Your task to perform on an android device: toggle javascript in the chrome app Image 0: 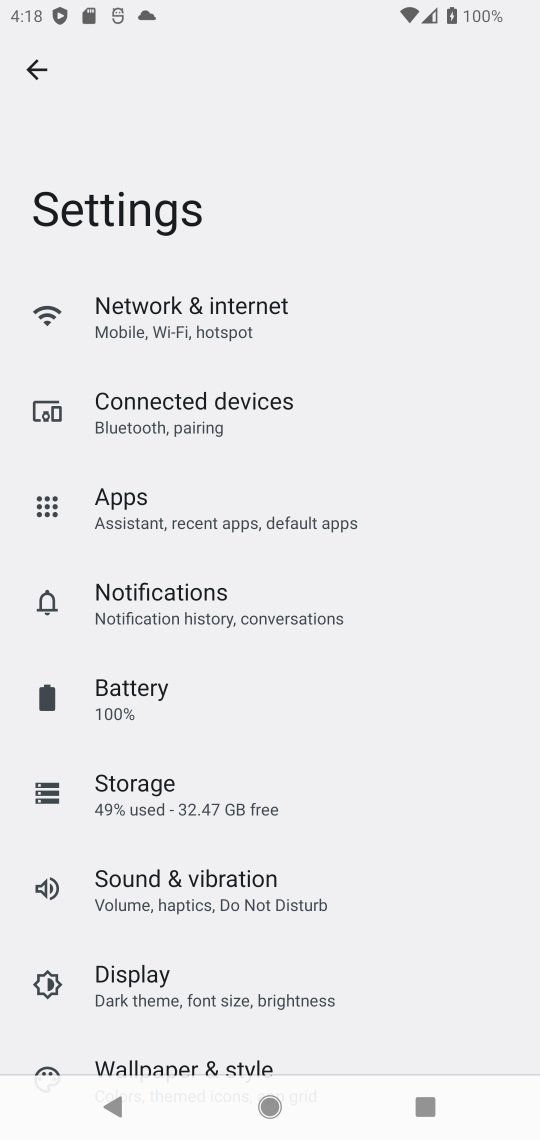
Step 0: press home button
Your task to perform on an android device: toggle javascript in the chrome app Image 1: 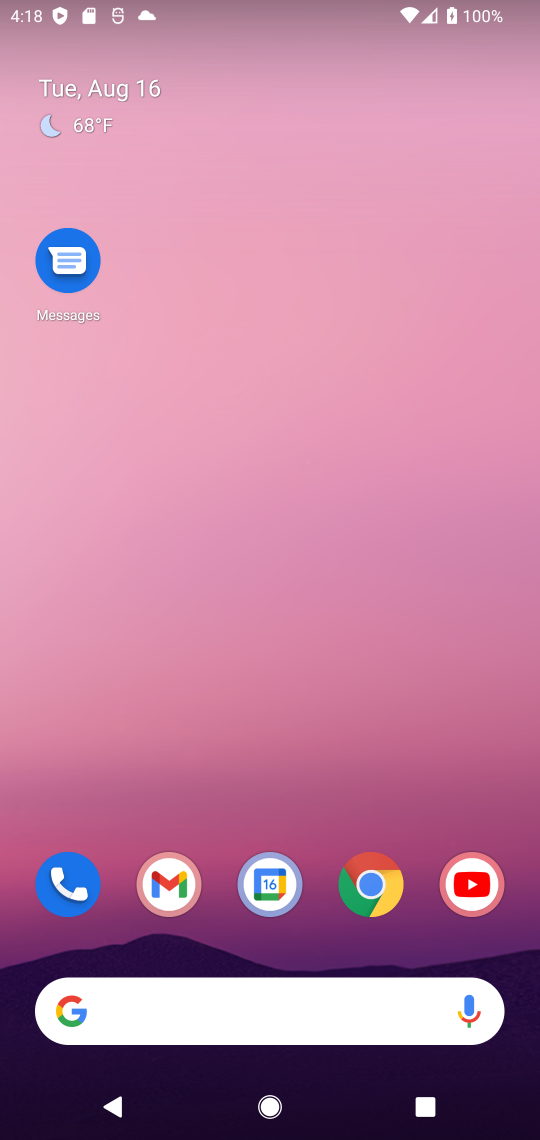
Step 1: click (372, 878)
Your task to perform on an android device: toggle javascript in the chrome app Image 2: 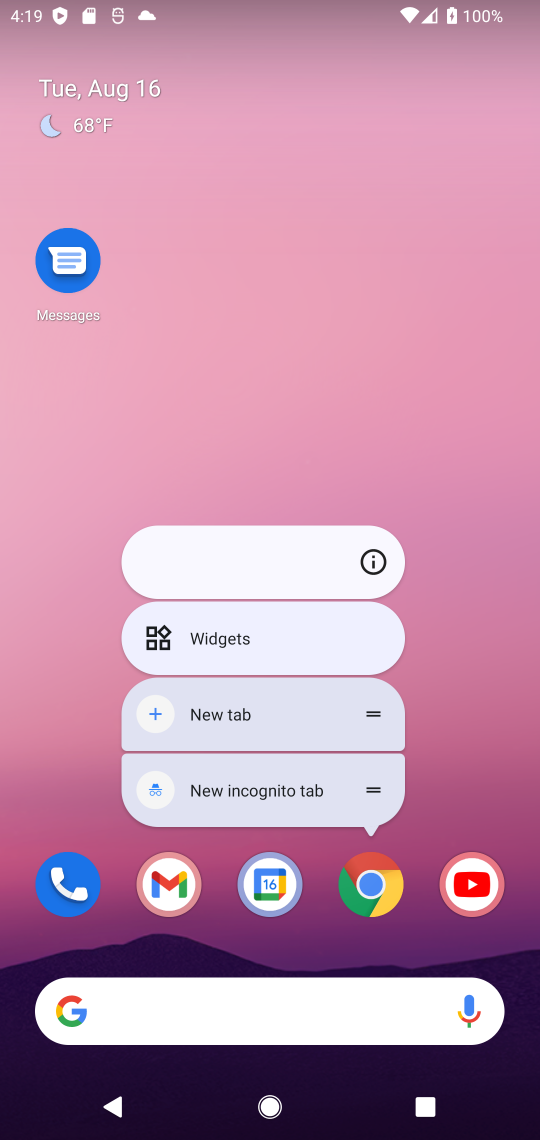
Step 2: click (377, 884)
Your task to perform on an android device: toggle javascript in the chrome app Image 3: 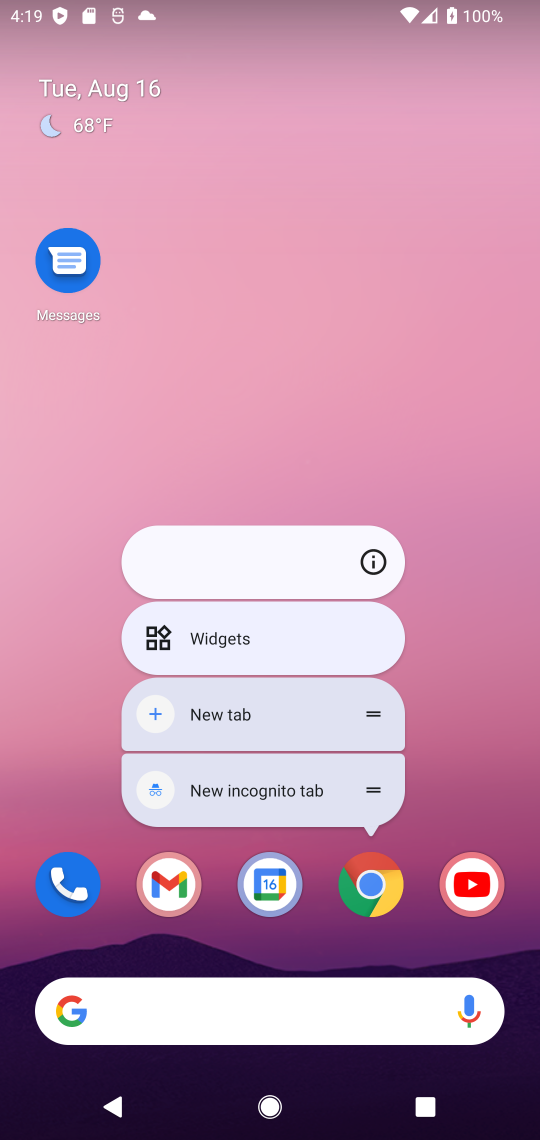
Step 3: click (360, 879)
Your task to perform on an android device: toggle javascript in the chrome app Image 4: 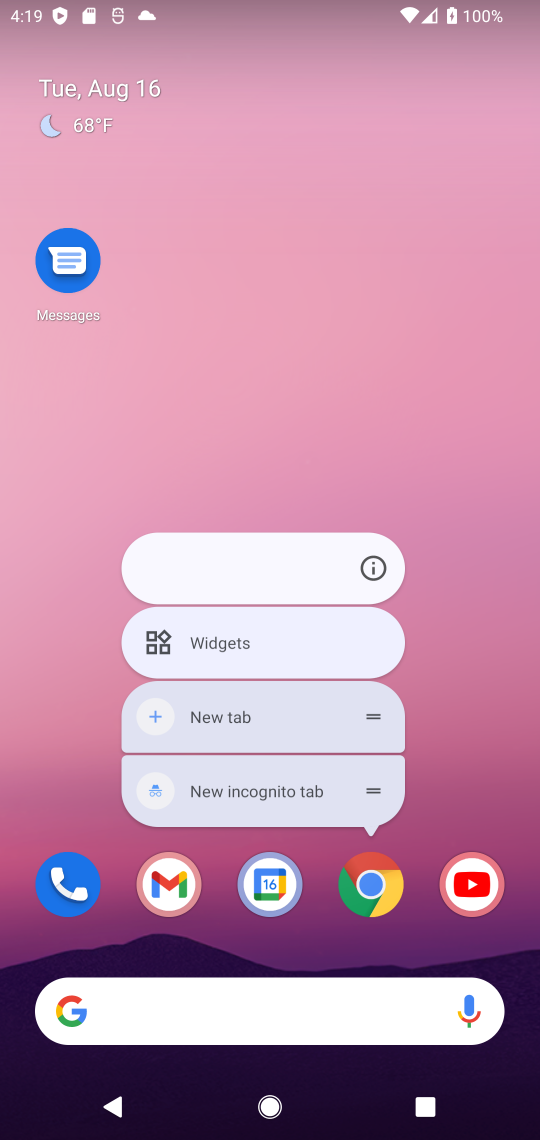
Step 4: click (360, 879)
Your task to perform on an android device: toggle javascript in the chrome app Image 5: 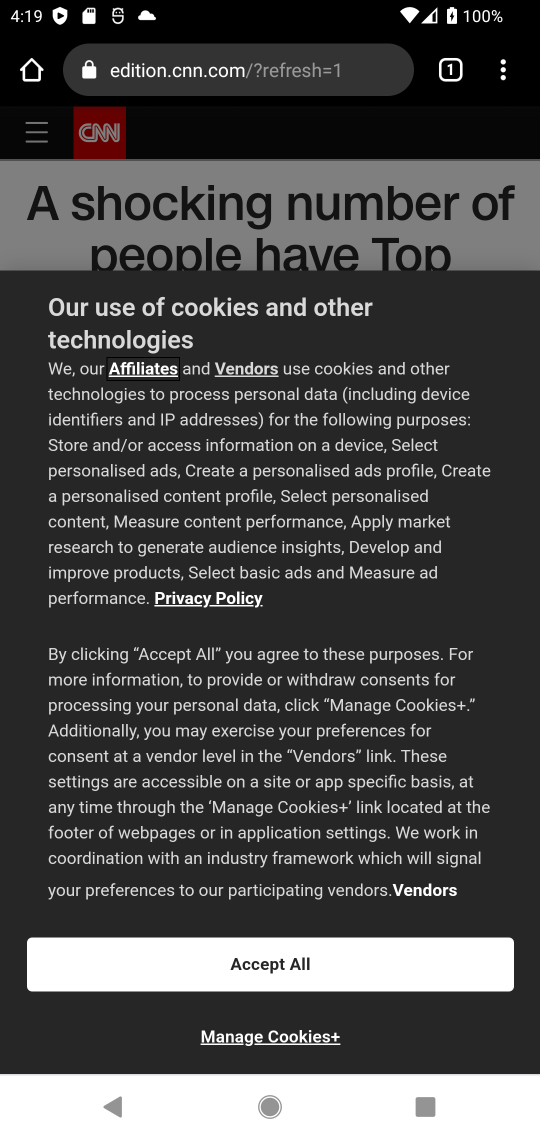
Step 5: click (501, 71)
Your task to perform on an android device: toggle javascript in the chrome app Image 6: 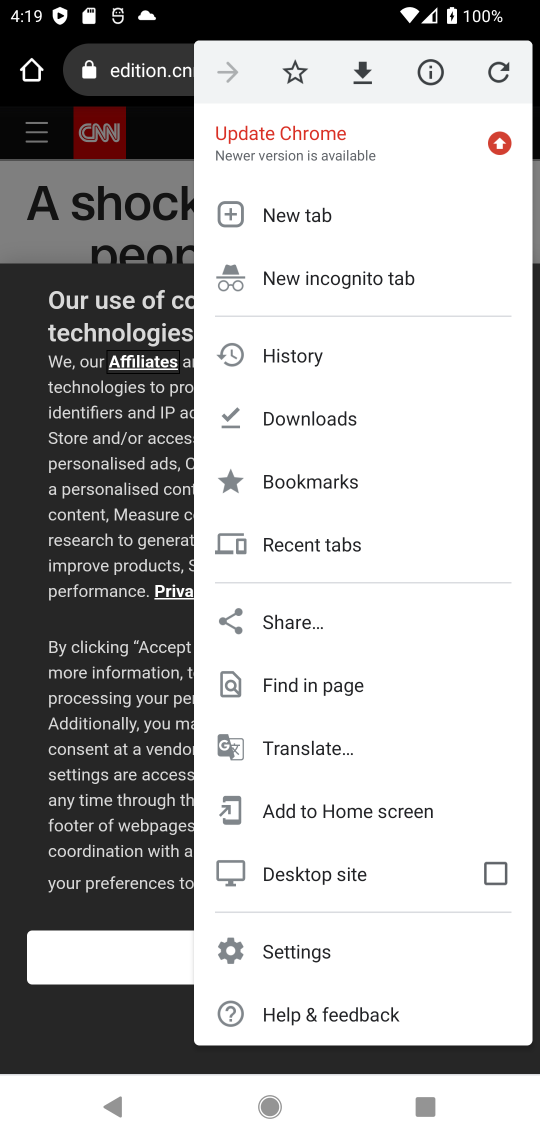
Step 6: click (280, 948)
Your task to perform on an android device: toggle javascript in the chrome app Image 7: 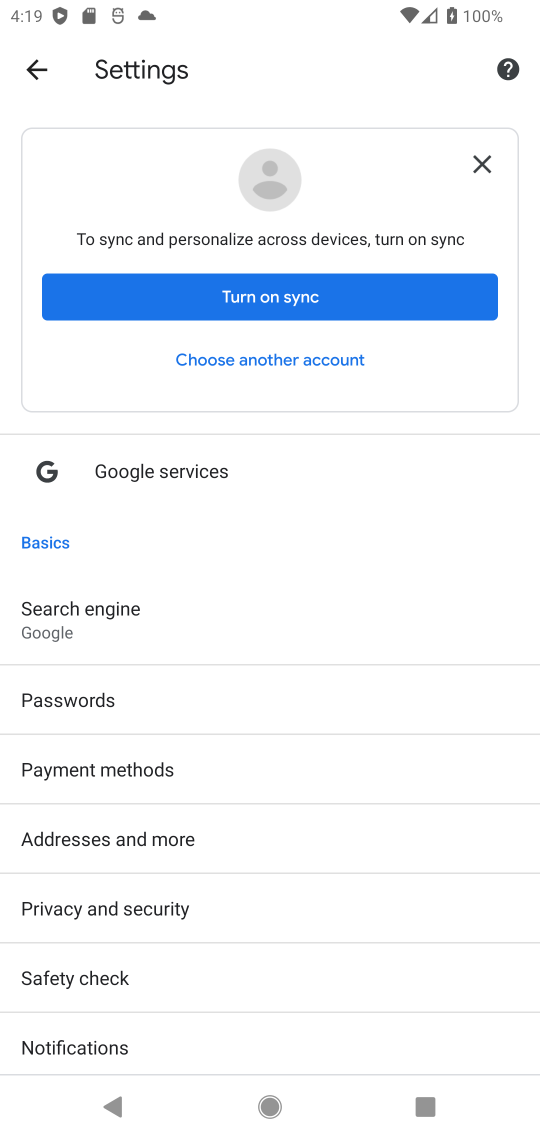
Step 7: drag from (326, 1058) to (434, 480)
Your task to perform on an android device: toggle javascript in the chrome app Image 8: 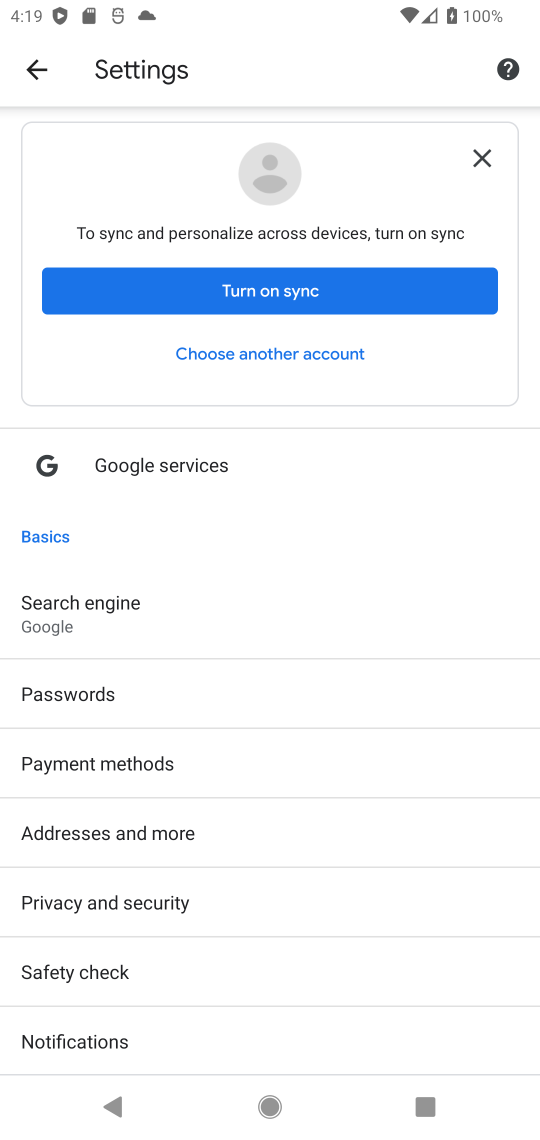
Step 8: drag from (306, 908) to (360, 411)
Your task to perform on an android device: toggle javascript in the chrome app Image 9: 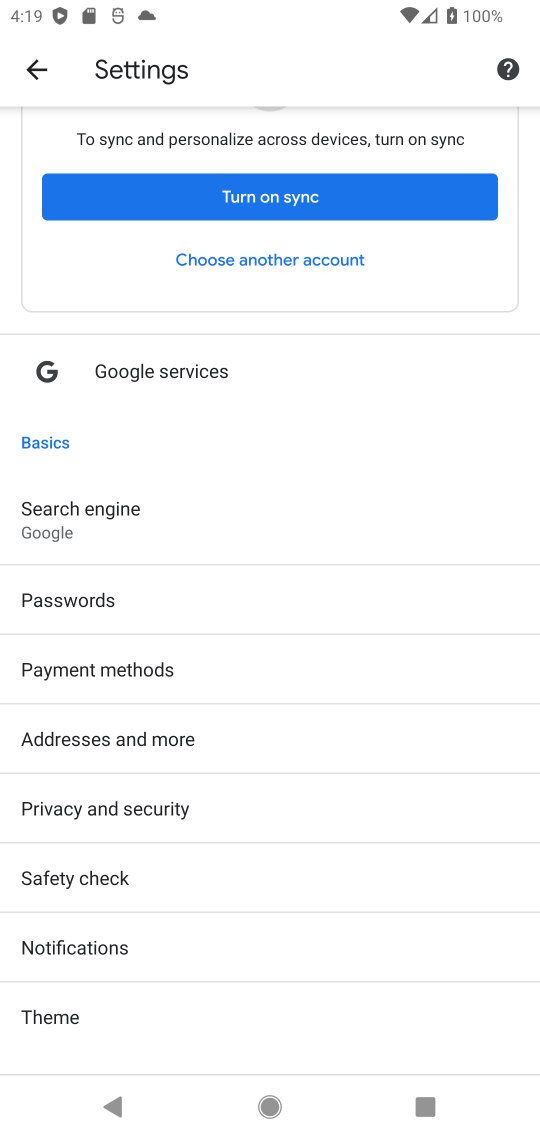
Step 9: drag from (322, 979) to (343, 484)
Your task to perform on an android device: toggle javascript in the chrome app Image 10: 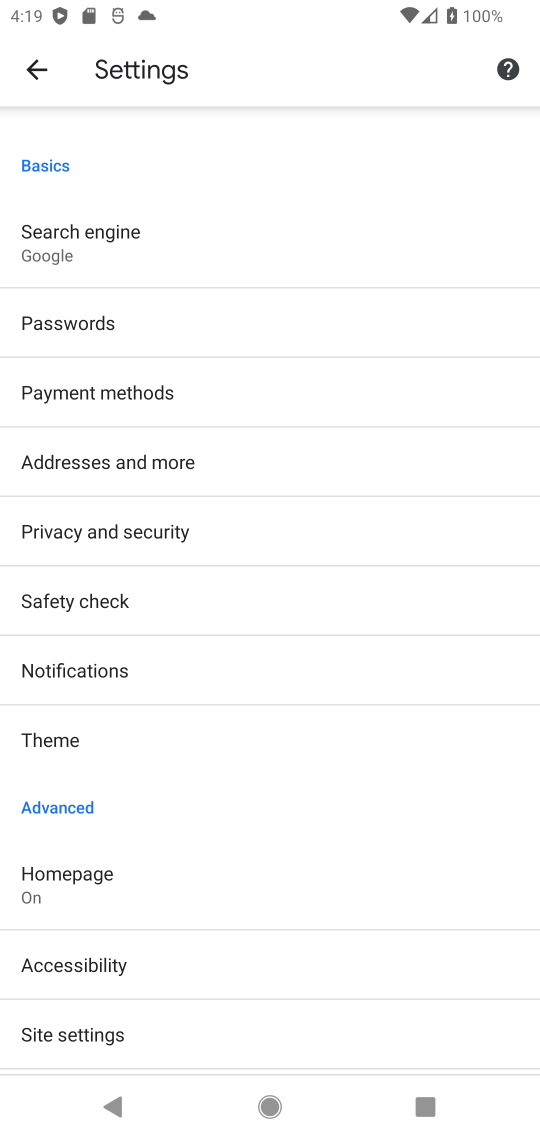
Step 10: click (75, 1039)
Your task to perform on an android device: toggle javascript in the chrome app Image 11: 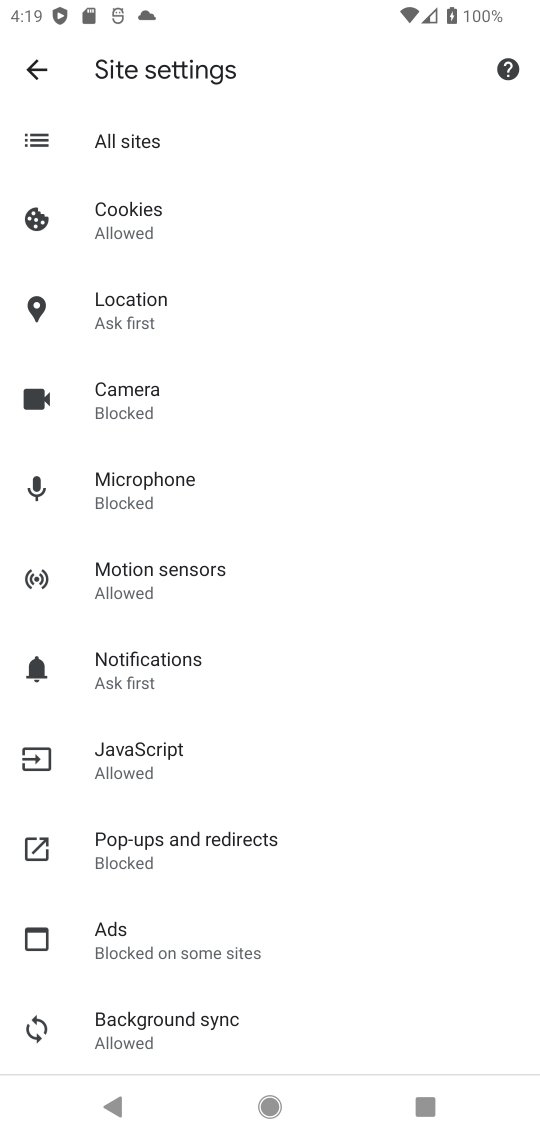
Step 11: click (137, 753)
Your task to perform on an android device: toggle javascript in the chrome app Image 12: 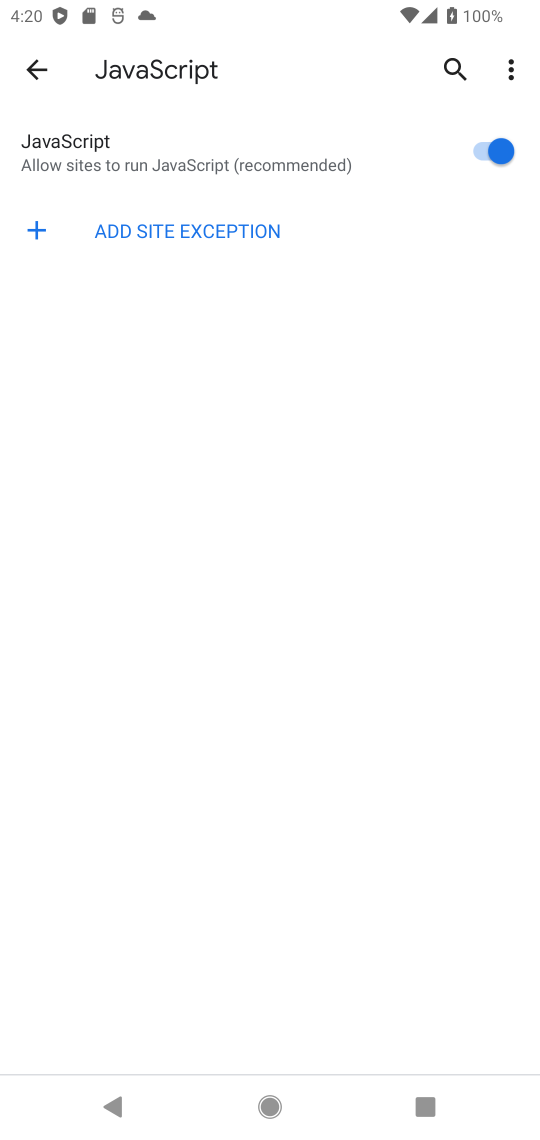
Step 12: task complete